Your task to perform on an android device: See recent photos Image 0: 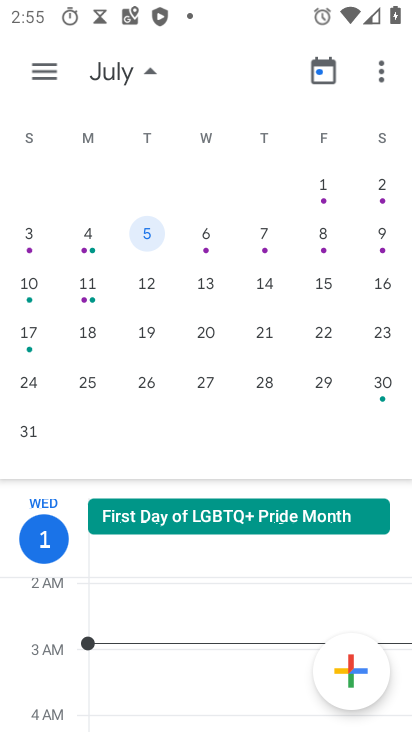
Step 0: click (346, 615)
Your task to perform on an android device: See recent photos Image 1: 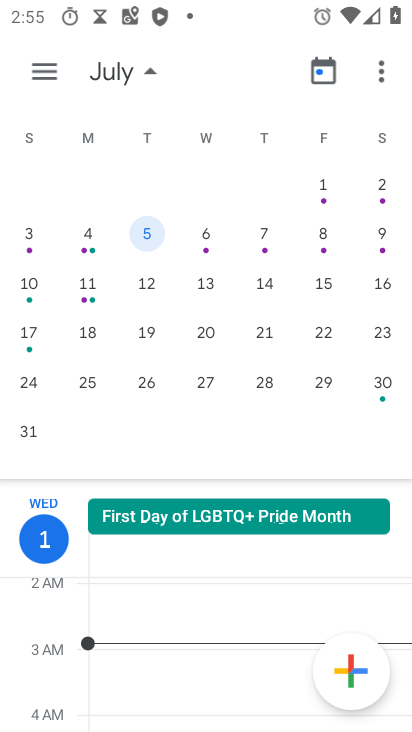
Step 1: press home button
Your task to perform on an android device: See recent photos Image 2: 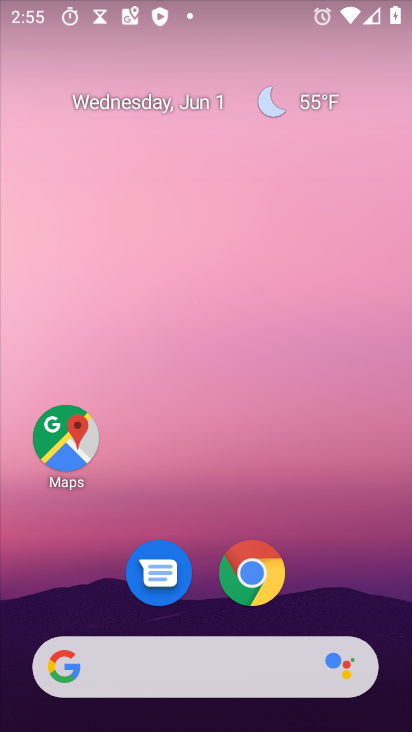
Step 2: drag from (353, 572) to (260, 64)
Your task to perform on an android device: See recent photos Image 3: 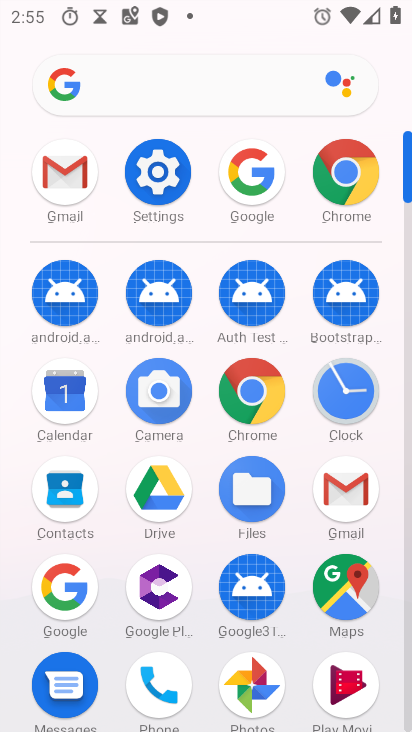
Step 3: click (251, 706)
Your task to perform on an android device: See recent photos Image 4: 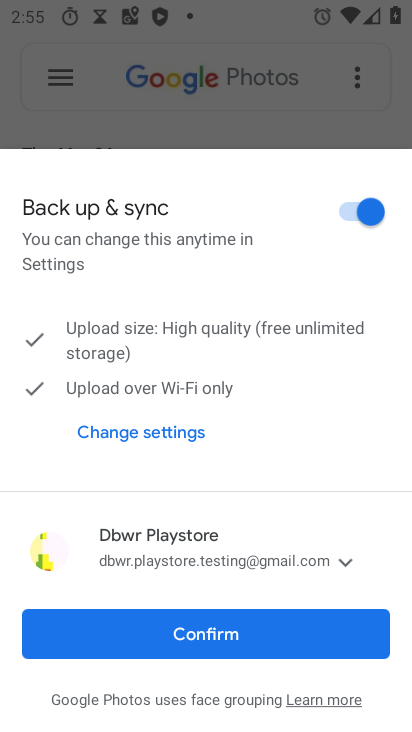
Step 4: click (228, 642)
Your task to perform on an android device: See recent photos Image 5: 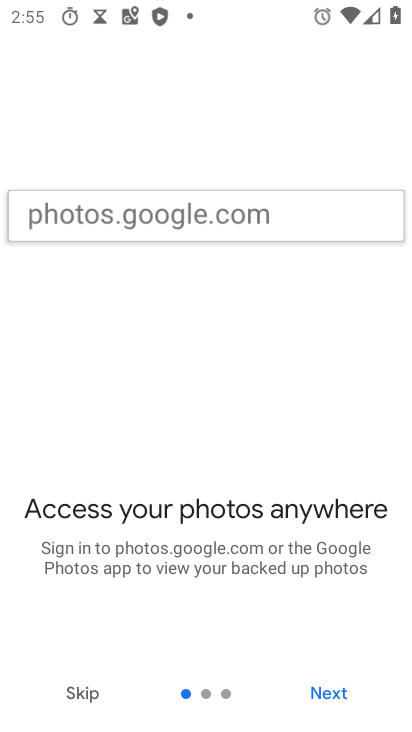
Step 5: click (336, 698)
Your task to perform on an android device: See recent photos Image 6: 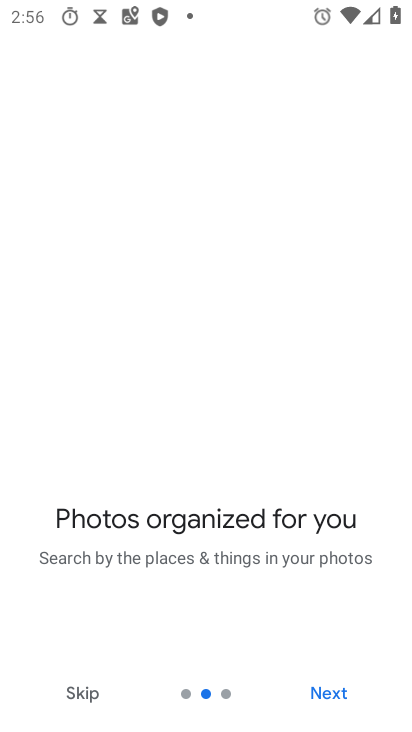
Step 6: click (336, 698)
Your task to perform on an android device: See recent photos Image 7: 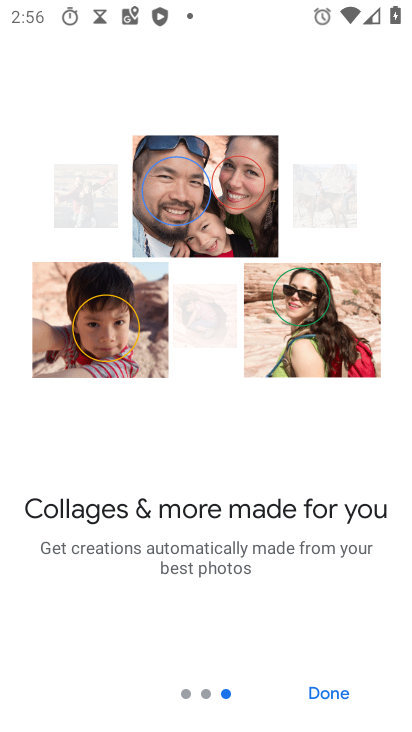
Step 7: click (336, 697)
Your task to perform on an android device: See recent photos Image 8: 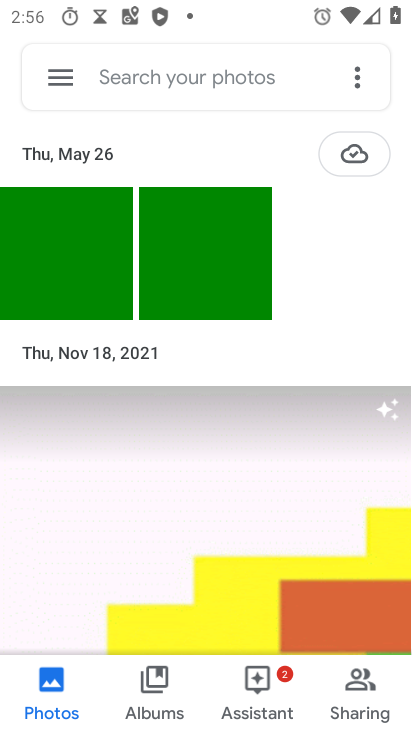
Step 8: task complete